Your task to perform on an android device: see tabs open on other devices in the chrome app Image 0: 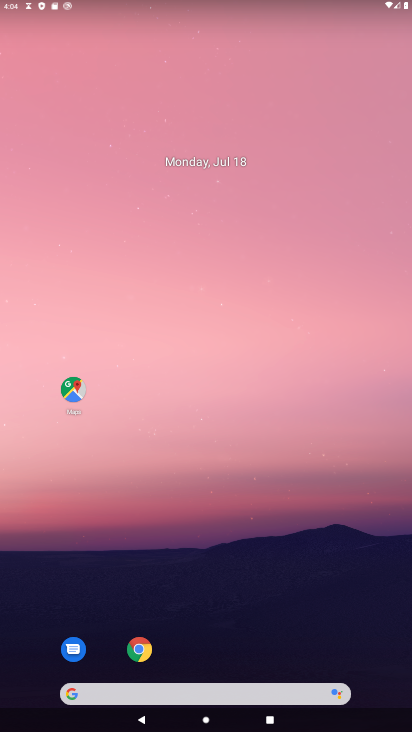
Step 0: press home button
Your task to perform on an android device: see tabs open on other devices in the chrome app Image 1: 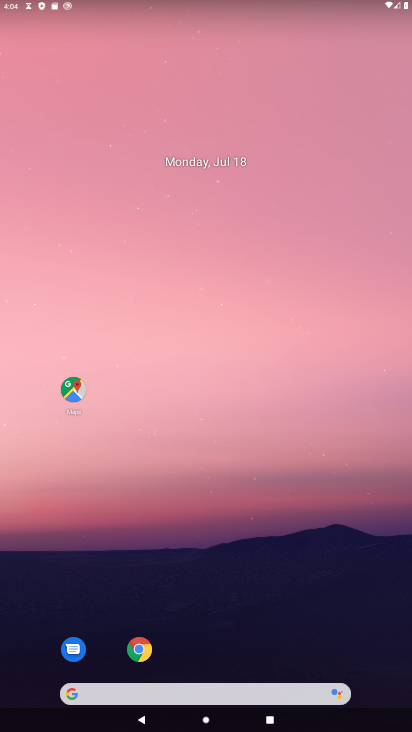
Step 1: click (135, 650)
Your task to perform on an android device: see tabs open on other devices in the chrome app Image 2: 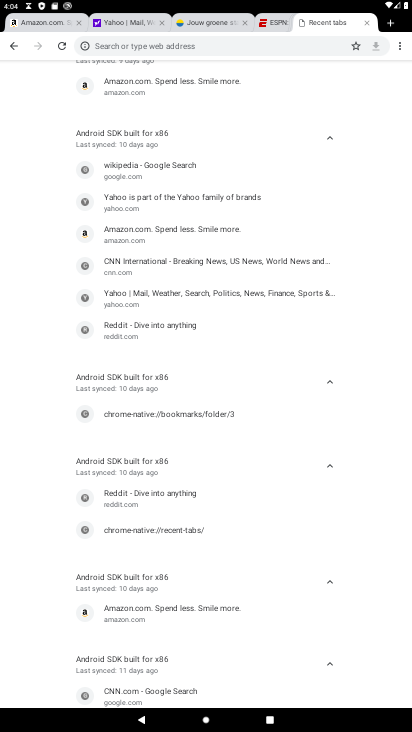
Step 2: click (399, 41)
Your task to perform on an android device: see tabs open on other devices in the chrome app Image 3: 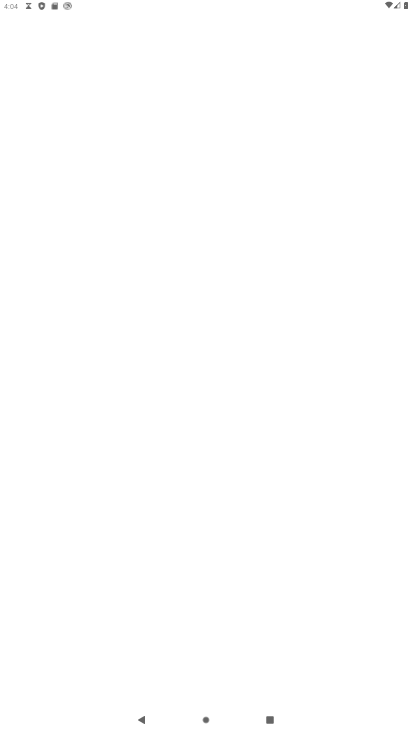
Step 3: click (399, 41)
Your task to perform on an android device: see tabs open on other devices in the chrome app Image 4: 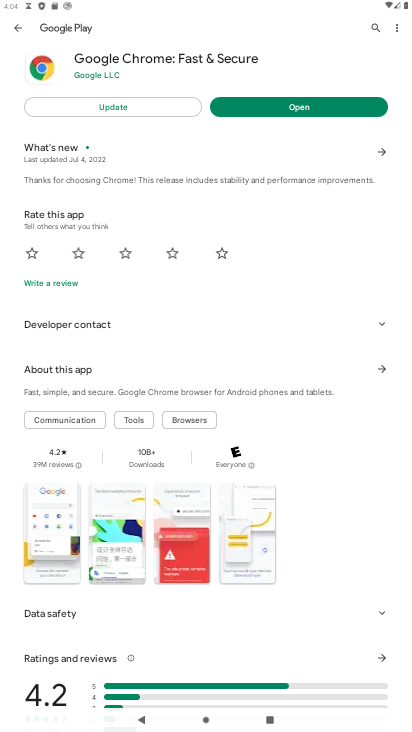
Step 4: task complete